Your task to perform on an android device: turn on notifications settings in the gmail app Image 0: 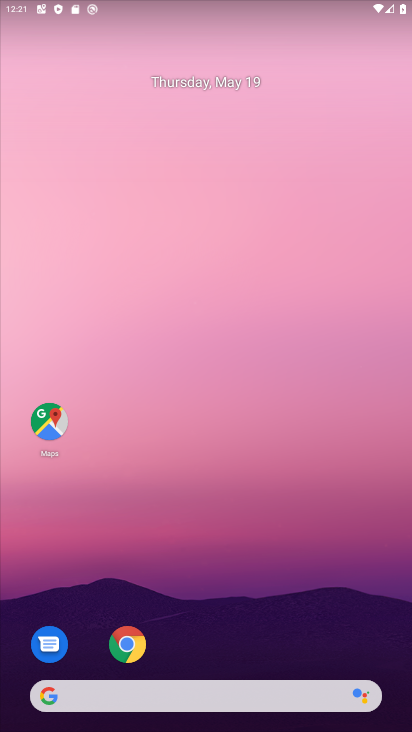
Step 0: drag from (229, 555) to (264, 182)
Your task to perform on an android device: turn on notifications settings in the gmail app Image 1: 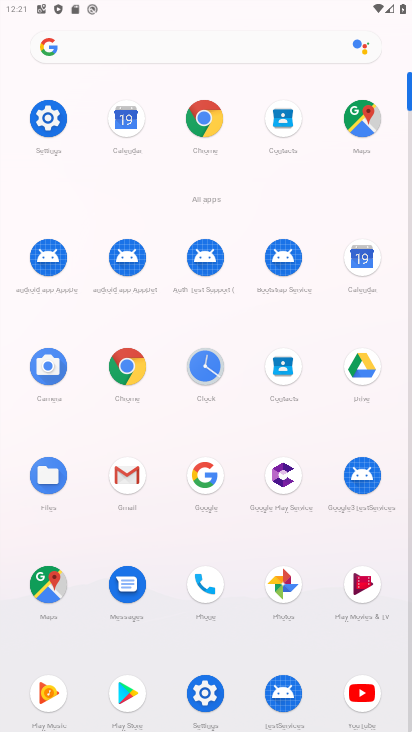
Step 1: click (58, 128)
Your task to perform on an android device: turn on notifications settings in the gmail app Image 2: 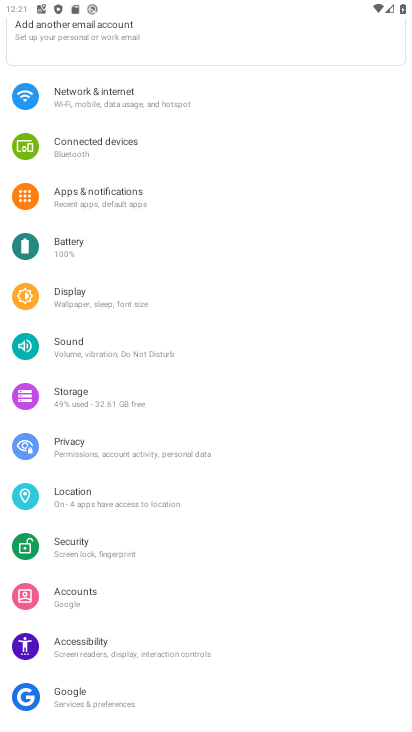
Step 2: press home button
Your task to perform on an android device: turn on notifications settings in the gmail app Image 3: 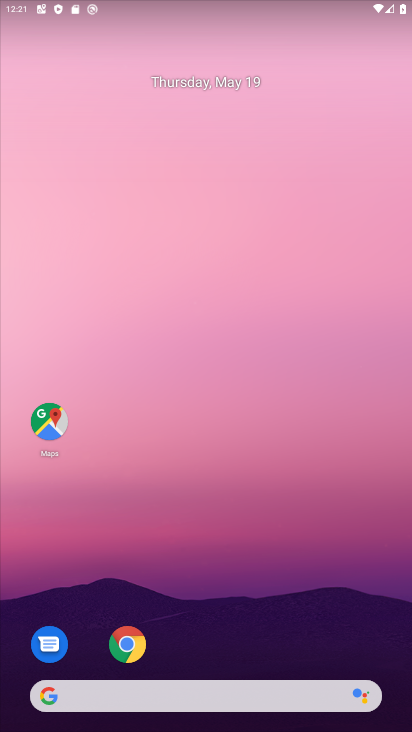
Step 3: drag from (322, 548) to (319, 110)
Your task to perform on an android device: turn on notifications settings in the gmail app Image 4: 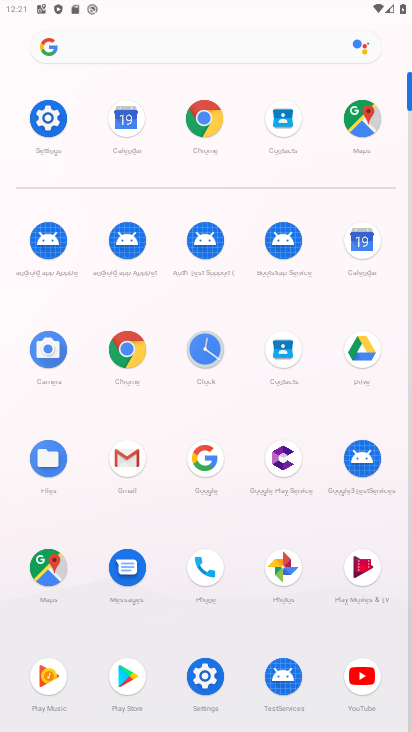
Step 4: click (129, 450)
Your task to perform on an android device: turn on notifications settings in the gmail app Image 5: 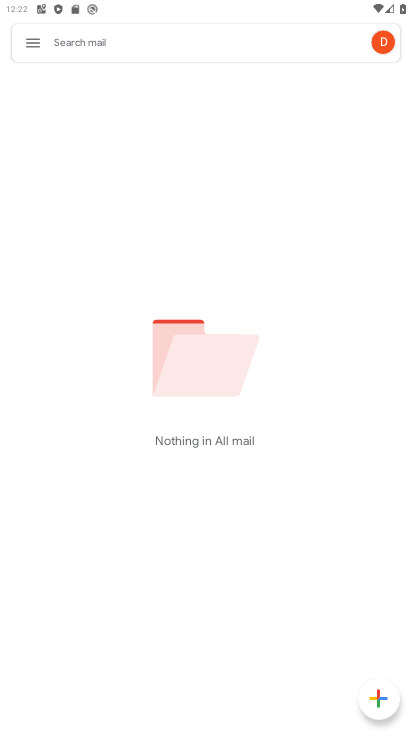
Step 5: click (44, 49)
Your task to perform on an android device: turn on notifications settings in the gmail app Image 6: 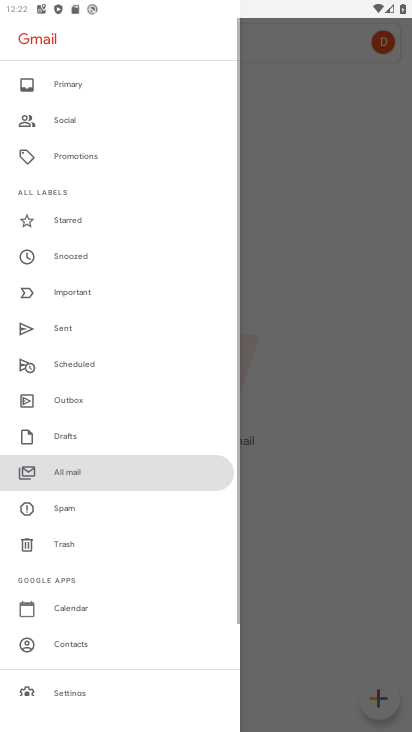
Step 6: drag from (123, 660) to (131, 196)
Your task to perform on an android device: turn on notifications settings in the gmail app Image 7: 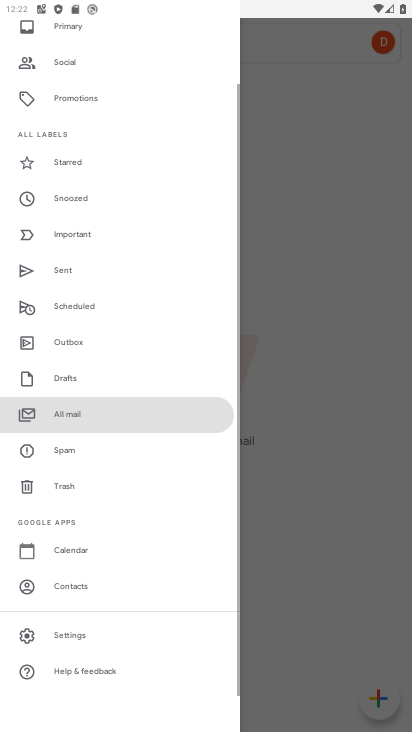
Step 7: click (97, 637)
Your task to perform on an android device: turn on notifications settings in the gmail app Image 8: 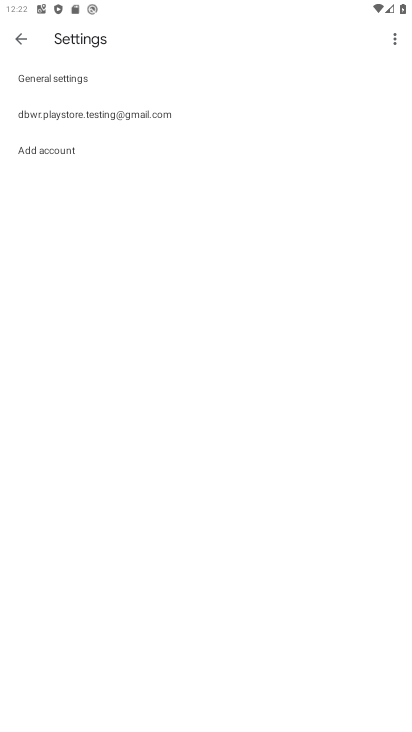
Step 8: click (146, 111)
Your task to perform on an android device: turn on notifications settings in the gmail app Image 9: 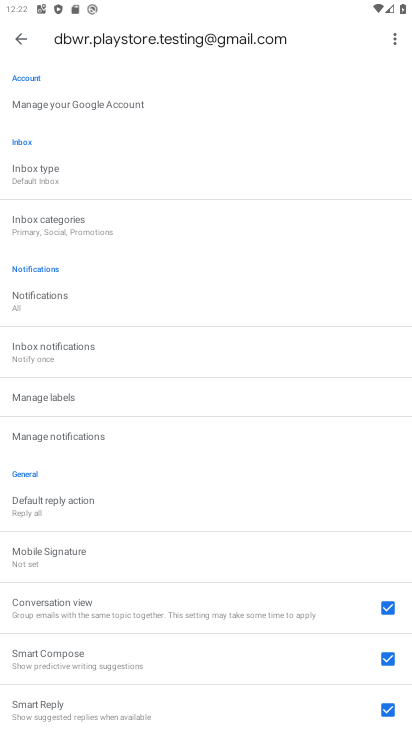
Step 9: click (65, 298)
Your task to perform on an android device: turn on notifications settings in the gmail app Image 10: 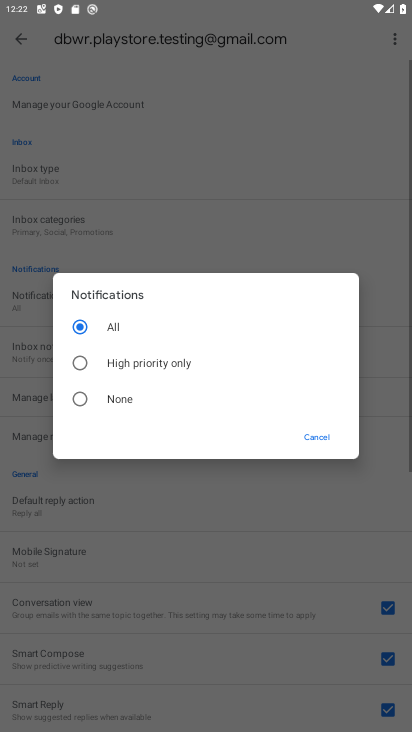
Step 10: task complete